Your task to perform on an android device: snooze an email in the gmail app Image 0: 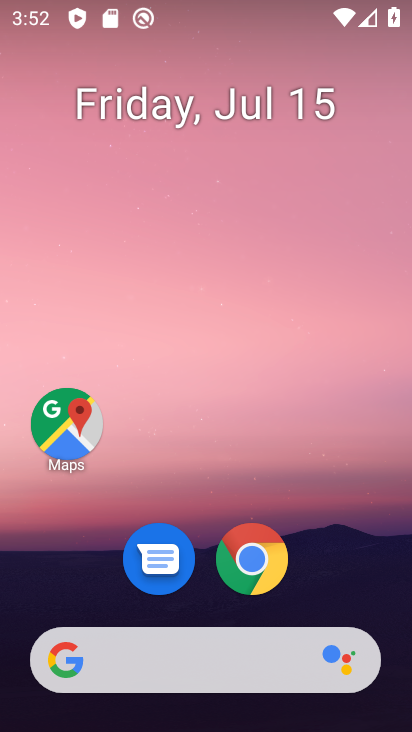
Step 0: drag from (65, 585) to (185, 6)
Your task to perform on an android device: snooze an email in the gmail app Image 1: 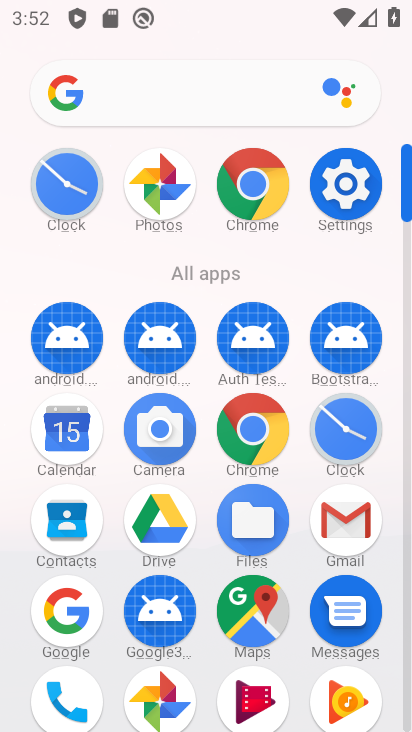
Step 1: click (351, 505)
Your task to perform on an android device: snooze an email in the gmail app Image 2: 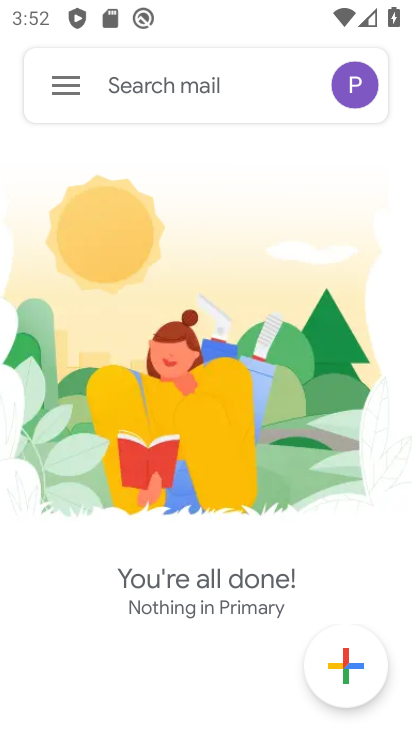
Step 2: click (69, 81)
Your task to perform on an android device: snooze an email in the gmail app Image 3: 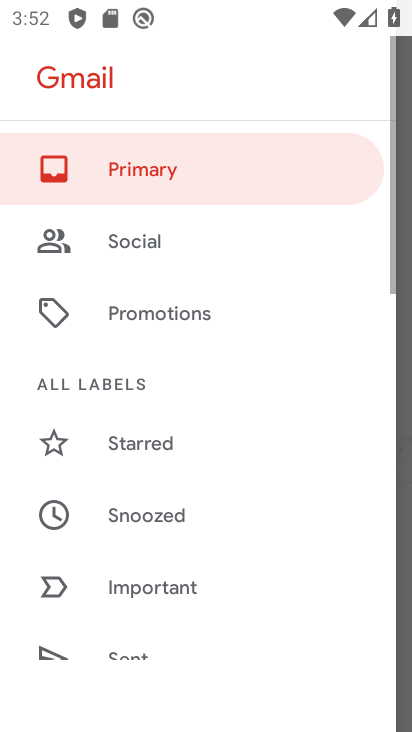
Step 3: drag from (143, 630) to (210, 136)
Your task to perform on an android device: snooze an email in the gmail app Image 4: 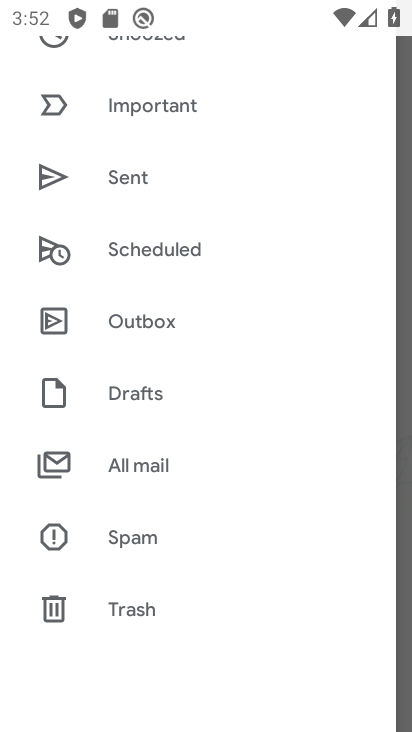
Step 4: click (143, 470)
Your task to perform on an android device: snooze an email in the gmail app Image 5: 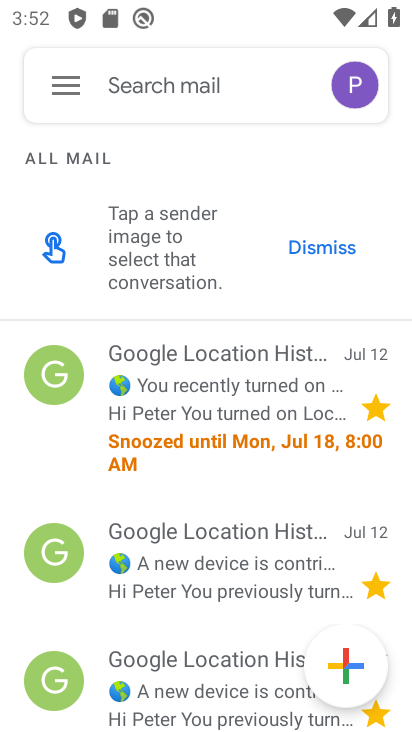
Step 5: click (175, 571)
Your task to perform on an android device: snooze an email in the gmail app Image 6: 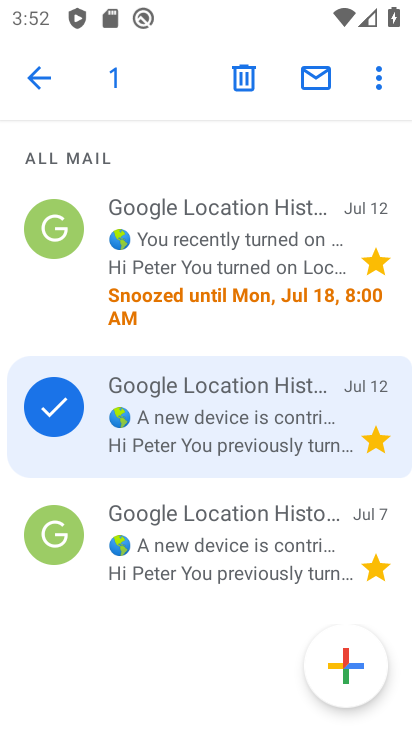
Step 6: click (377, 78)
Your task to perform on an android device: snooze an email in the gmail app Image 7: 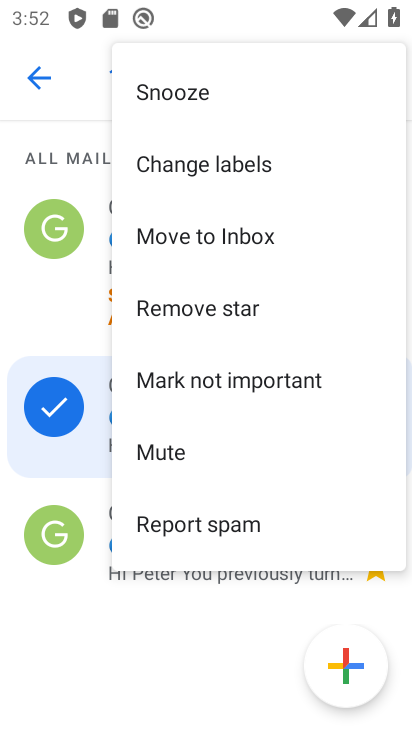
Step 7: click (169, 90)
Your task to perform on an android device: snooze an email in the gmail app Image 8: 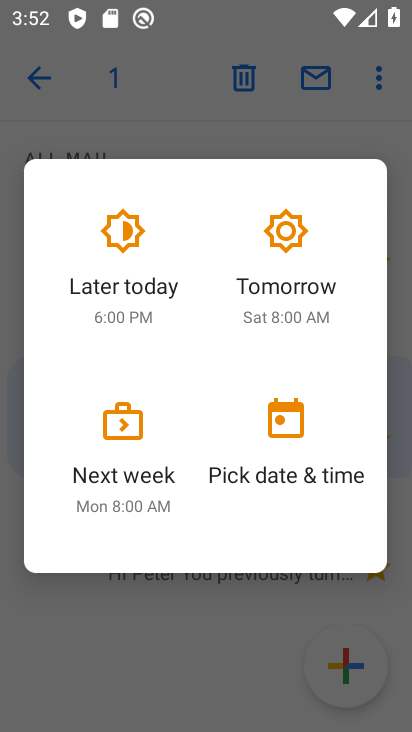
Step 8: click (278, 254)
Your task to perform on an android device: snooze an email in the gmail app Image 9: 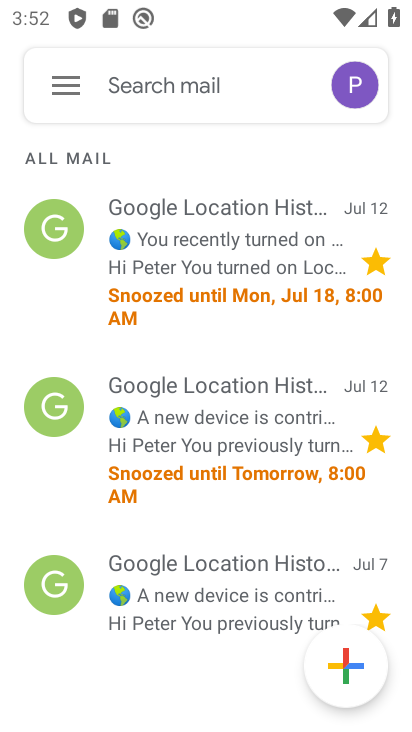
Step 9: task complete